Your task to perform on an android device: Go to accessibility settings Image 0: 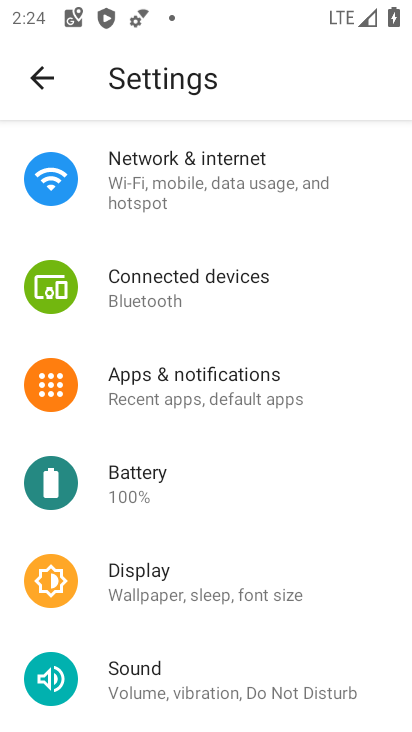
Step 0: drag from (172, 646) to (235, 107)
Your task to perform on an android device: Go to accessibility settings Image 1: 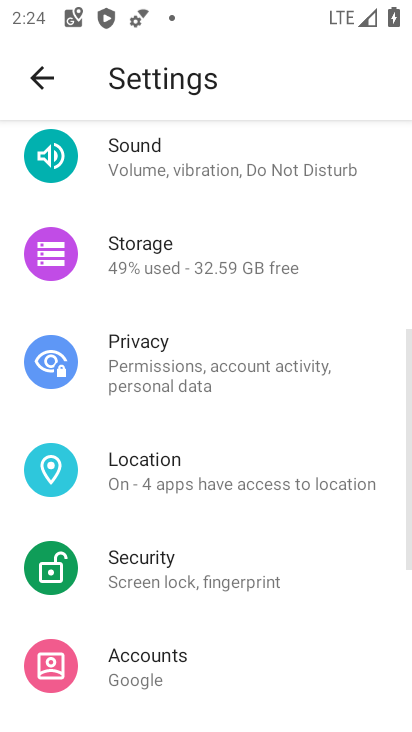
Step 1: drag from (184, 628) to (258, 101)
Your task to perform on an android device: Go to accessibility settings Image 2: 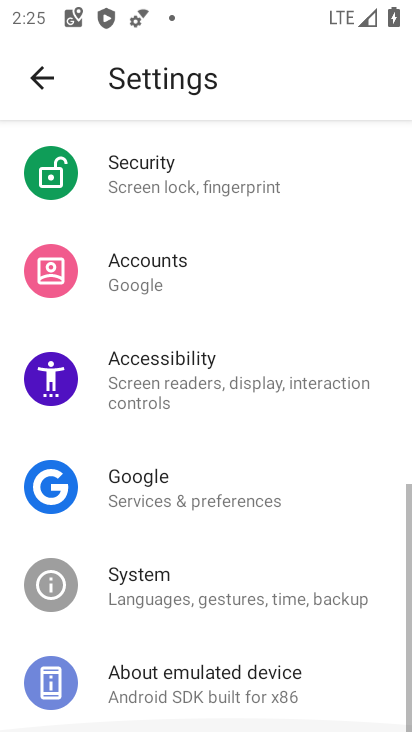
Step 2: drag from (192, 606) to (277, 86)
Your task to perform on an android device: Go to accessibility settings Image 3: 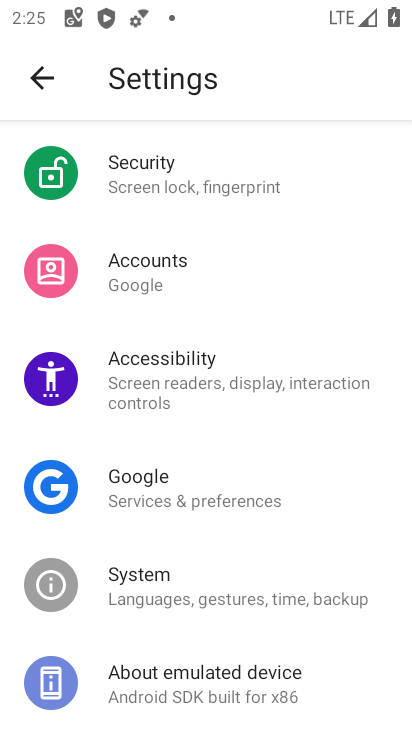
Step 3: click (178, 381)
Your task to perform on an android device: Go to accessibility settings Image 4: 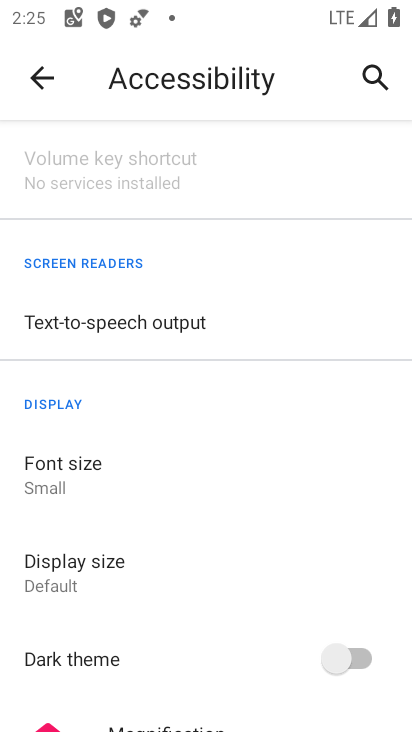
Step 4: task complete